Your task to perform on an android device: set the timer Image 0: 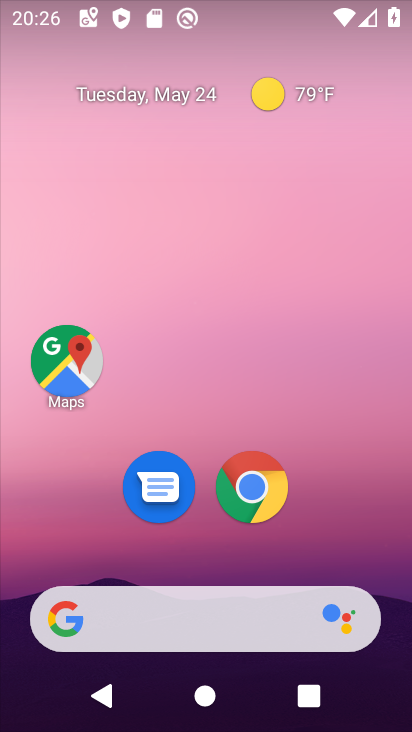
Step 0: press home button
Your task to perform on an android device: set the timer Image 1: 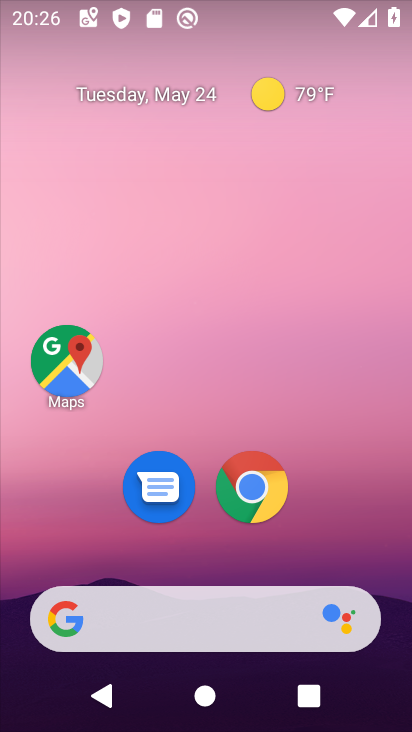
Step 1: drag from (0, 635) to (229, 131)
Your task to perform on an android device: set the timer Image 2: 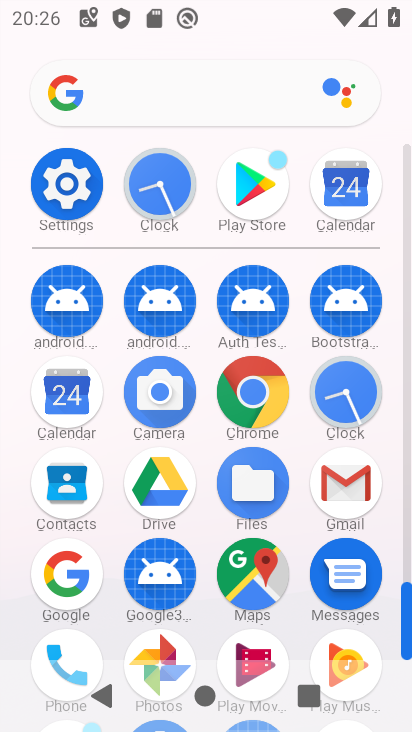
Step 2: click (353, 395)
Your task to perform on an android device: set the timer Image 3: 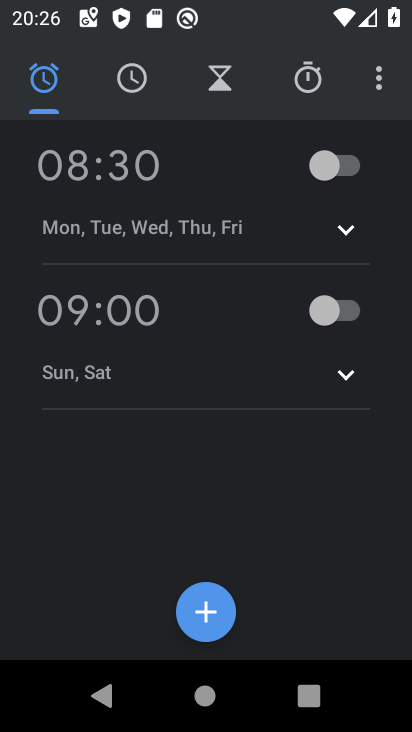
Step 3: click (229, 90)
Your task to perform on an android device: set the timer Image 4: 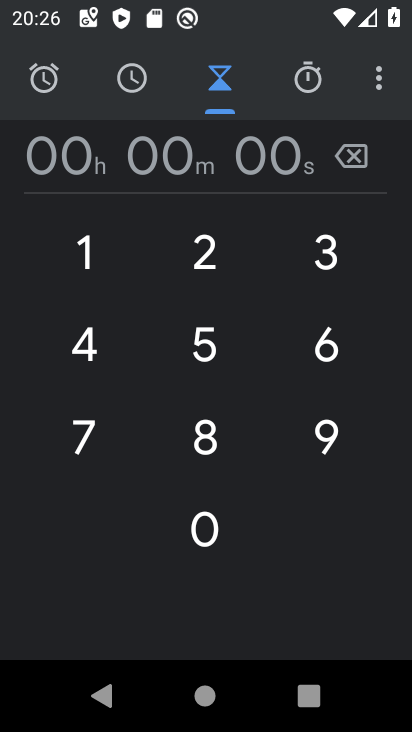
Step 4: click (91, 272)
Your task to perform on an android device: set the timer Image 5: 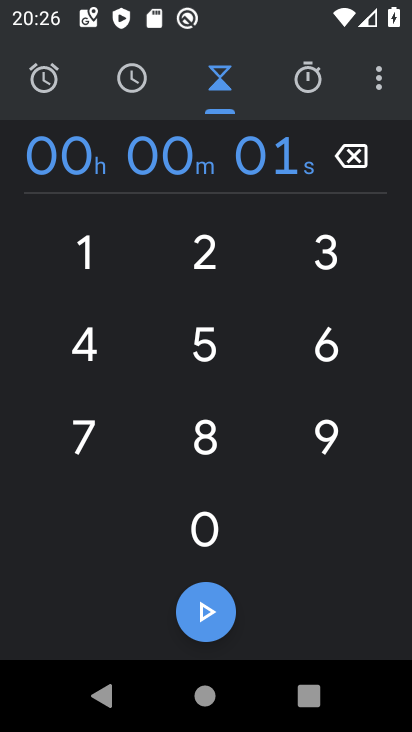
Step 5: click (203, 533)
Your task to perform on an android device: set the timer Image 6: 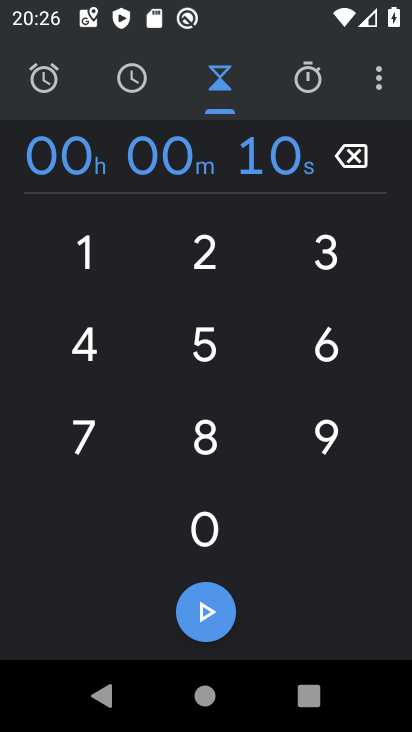
Step 6: click (203, 533)
Your task to perform on an android device: set the timer Image 7: 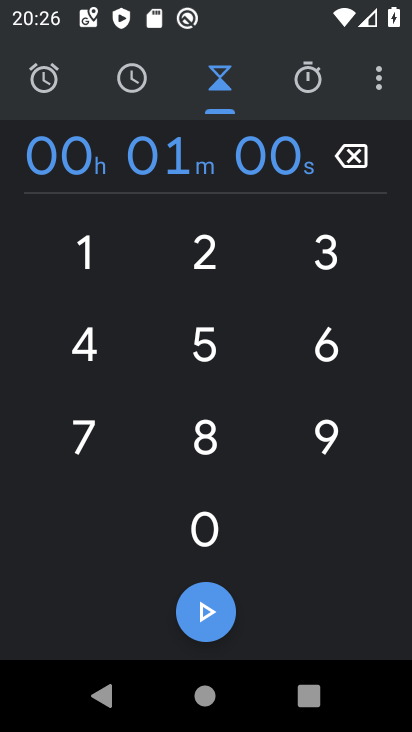
Step 7: click (203, 533)
Your task to perform on an android device: set the timer Image 8: 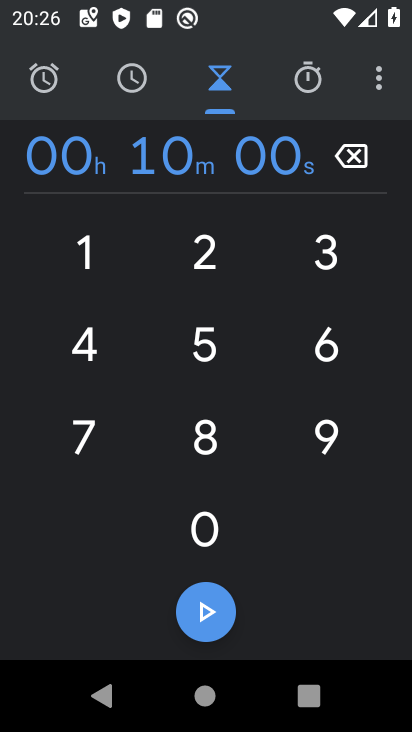
Step 8: click (203, 533)
Your task to perform on an android device: set the timer Image 9: 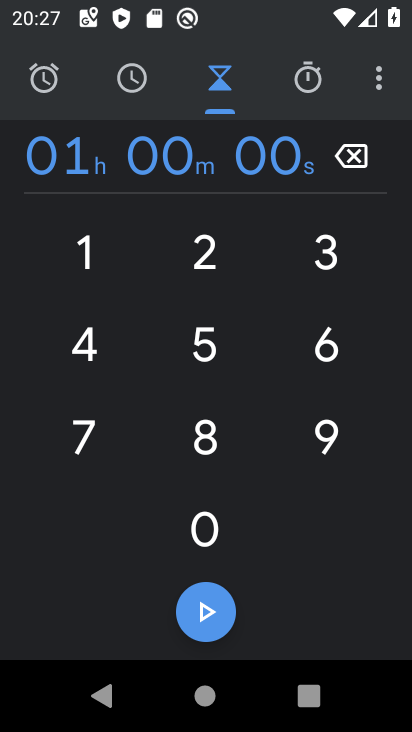
Step 9: click (203, 623)
Your task to perform on an android device: set the timer Image 10: 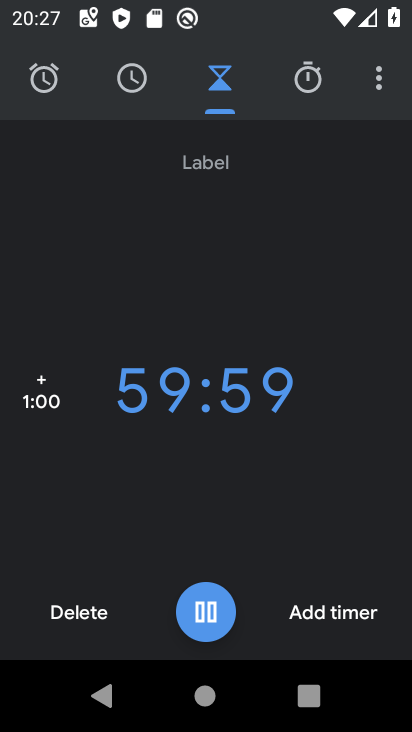
Step 10: task complete